Your task to perform on an android device: check battery use Image 0: 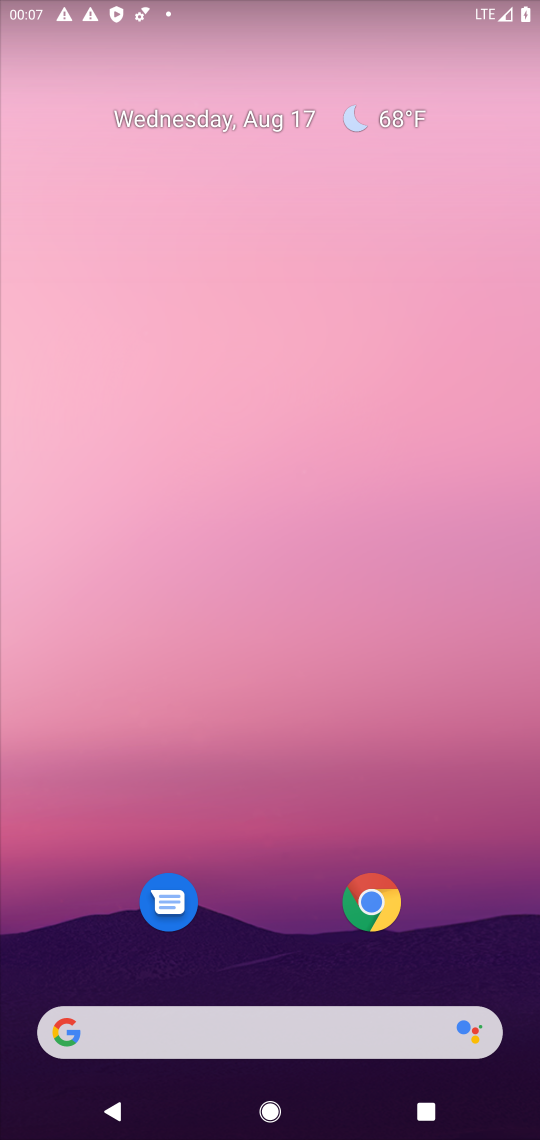
Step 0: drag from (273, 967) to (151, 67)
Your task to perform on an android device: check battery use Image 1: 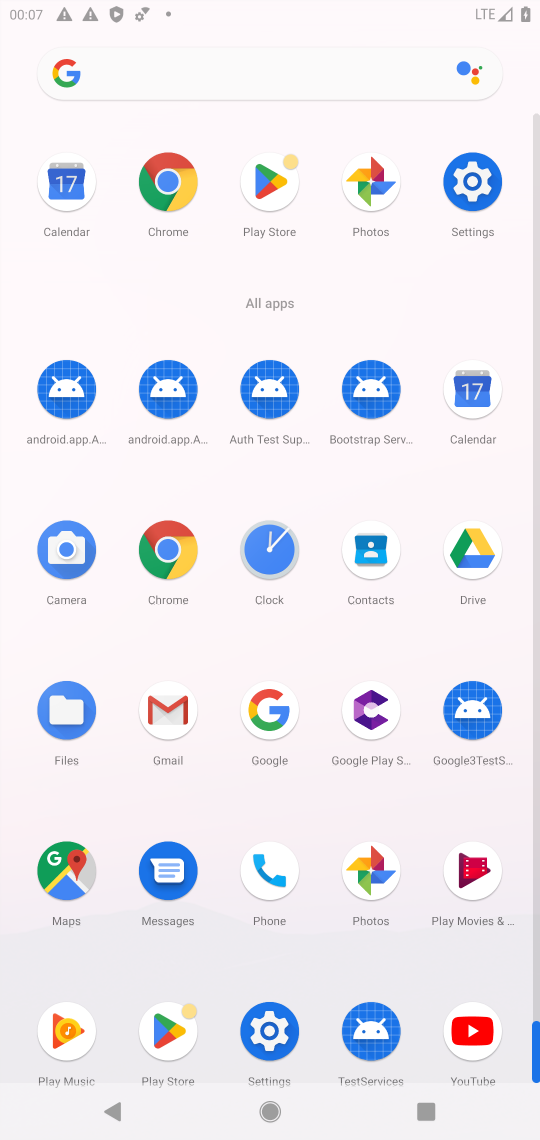
Step 1: click (263, 1036)
Your task to perform on an android device: check battery use Image 2: 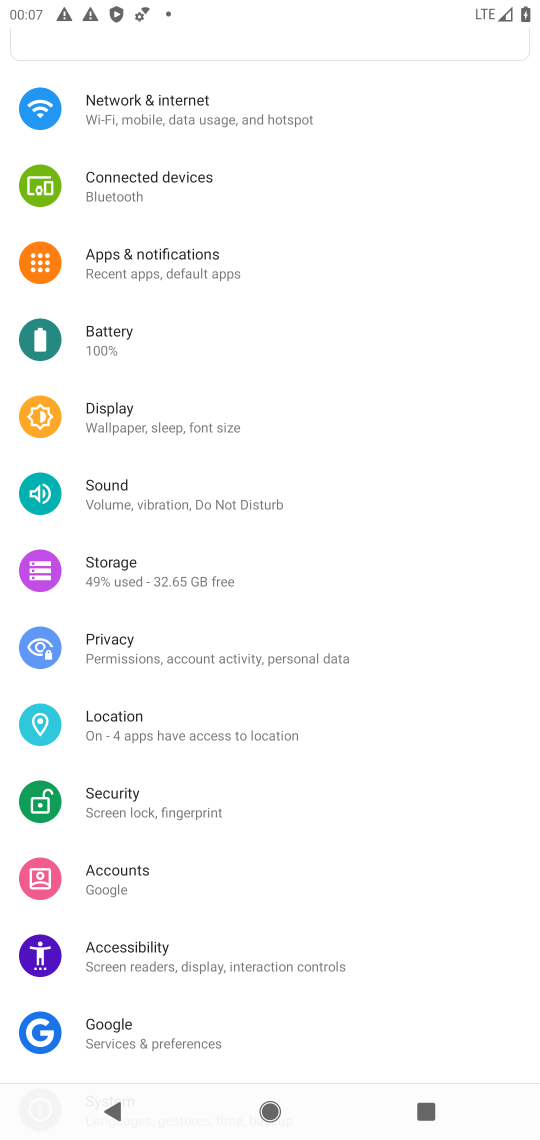
Step 2: click (133, 343)
Your task to perform on an android device: check battery use Image 3: 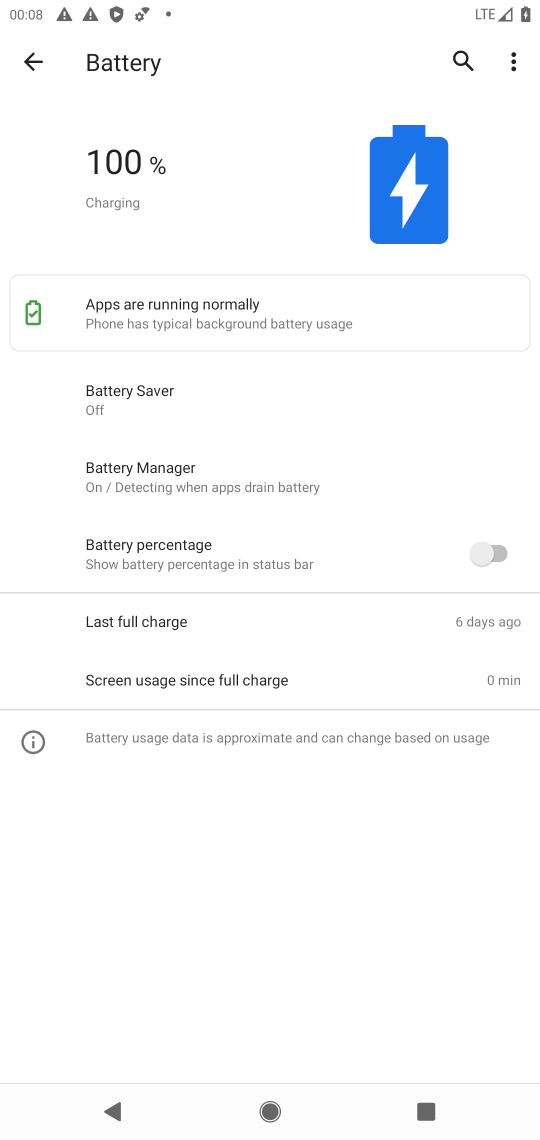
Step 3: click (509, 54)
Your task to perform on an android device: check battery use Image 4: 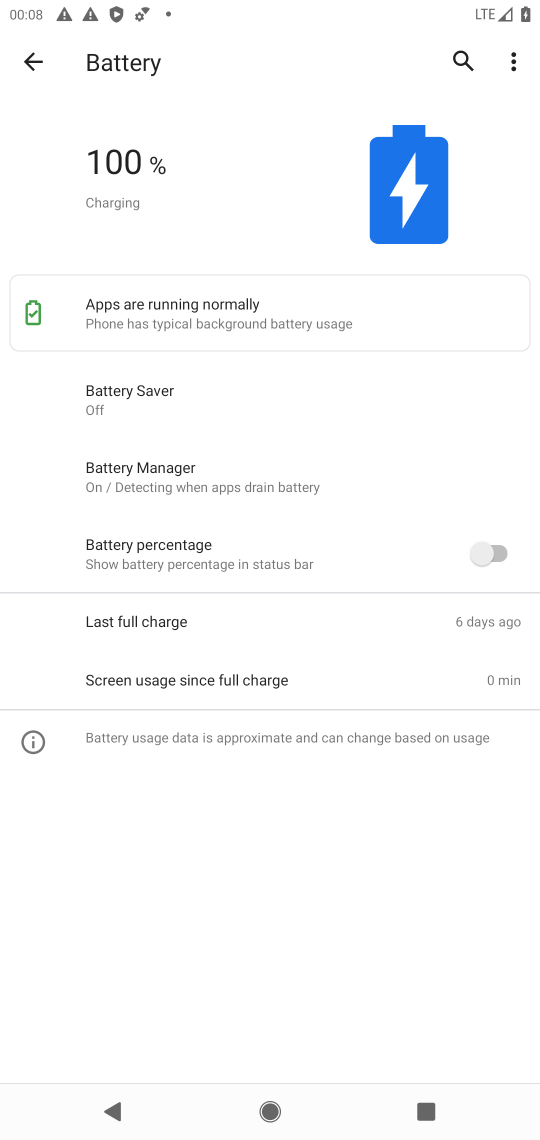
Step 4: click (510, 72)
Your task to perform on an android device: check battery use Image 5: 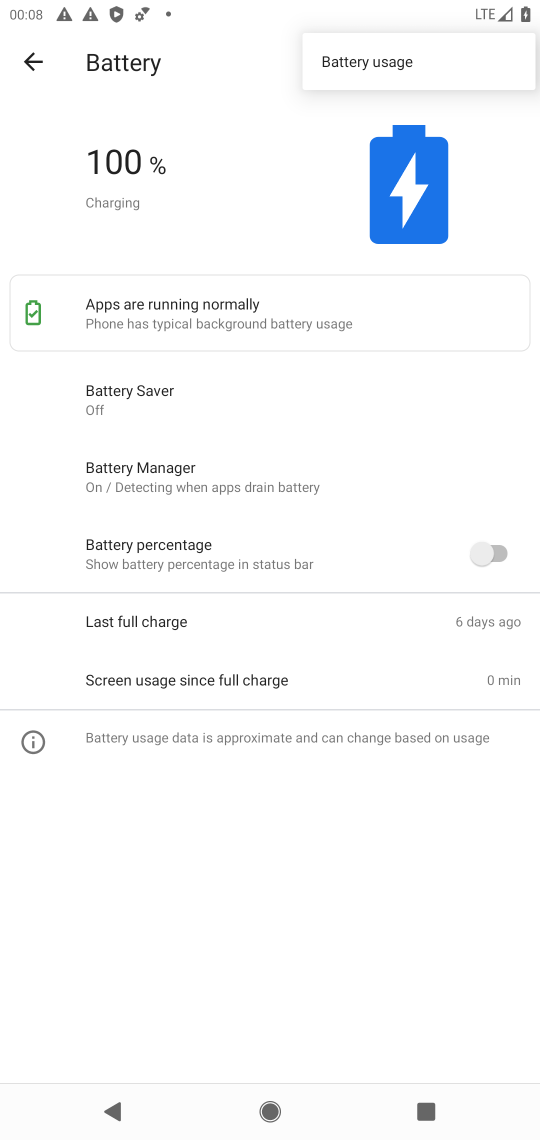
Step 5: click (385, 62)
Your task to perform on an android device: check battery use Image 6: 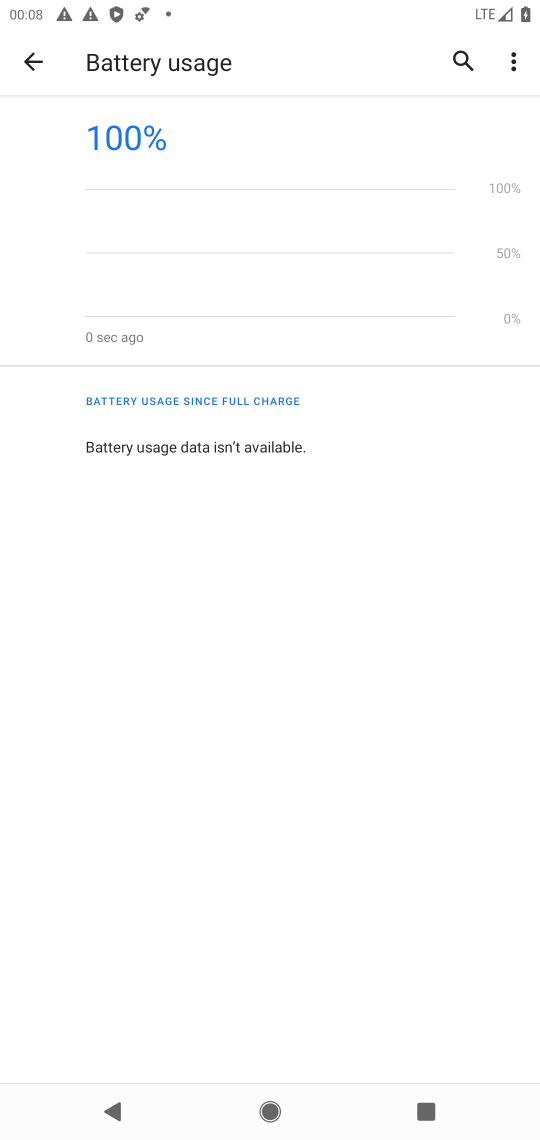
Step 6: task complete